Your task to perform on an android device: visit the assistant section in the google photos Image 0: 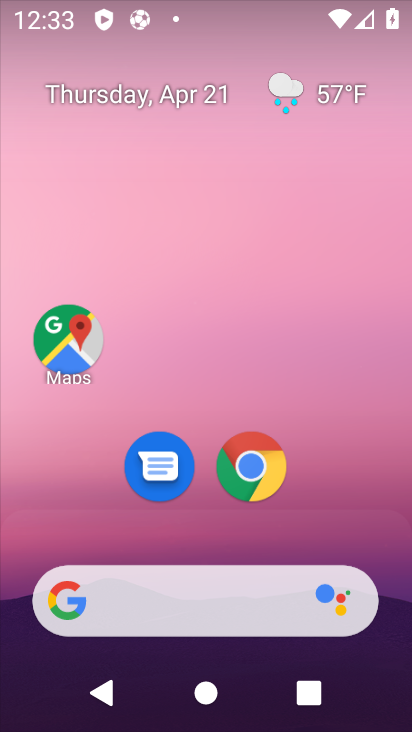
Step 0: drag from (342, 456) to (184, 59)
Your task to perform on an android device: visit the assistant section in the google photos Image 1: 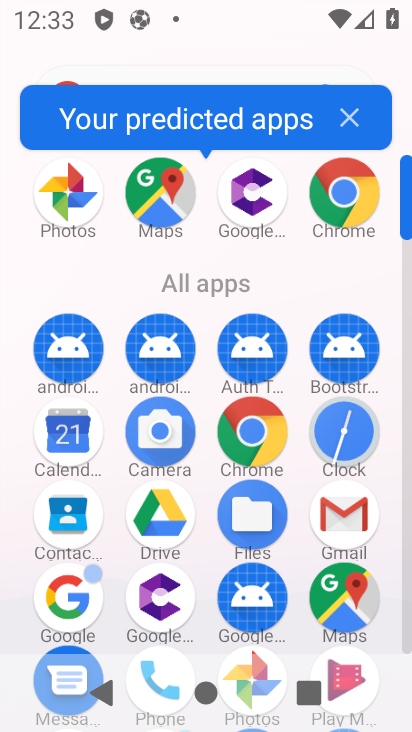
Step 1: click (59, 205)
Your task to perform on an android device: visit the assistant section in the google photos Image 2: 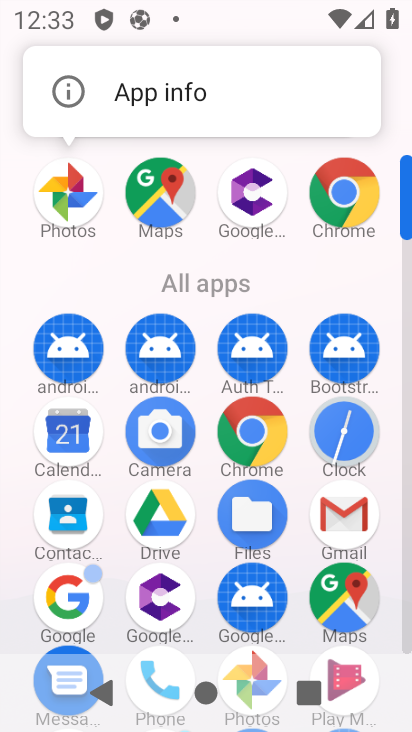
Step 2: click (60, 202)
Your task to perform on an android device: visit the assistant section in the google photos Image 3: 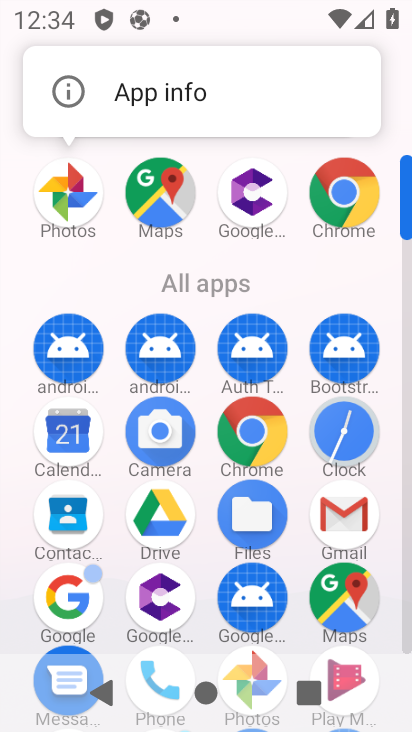
Step 3: click (61, 199)
Your task to perform on an android device: visit the assistant section in the google photos Image 4: 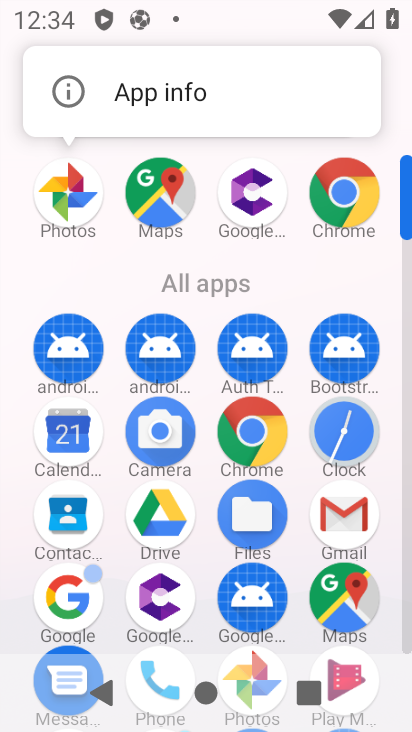
Step 4: click (61, 200)
Your task to perform on an android device: visit the assistant section in the google photos Image 5: 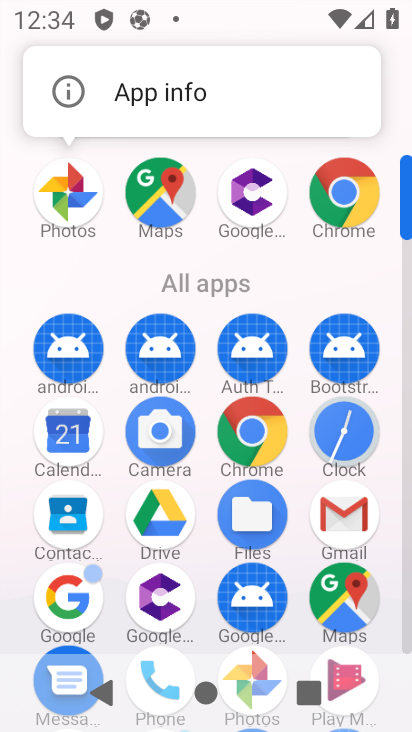
Step 5: click (61, 199)
Your task to perform on an android device: visit the assistant section in the google photos Image 6: 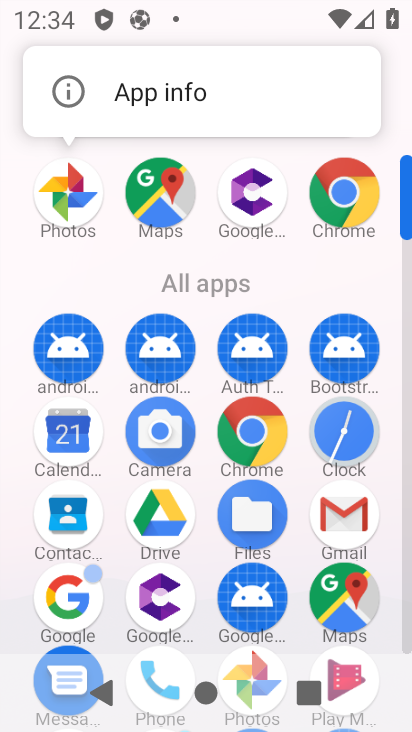
Step 6: click (71, 185)
Your task to perform on an android device: visit the assistant section in the google photos Image 7: 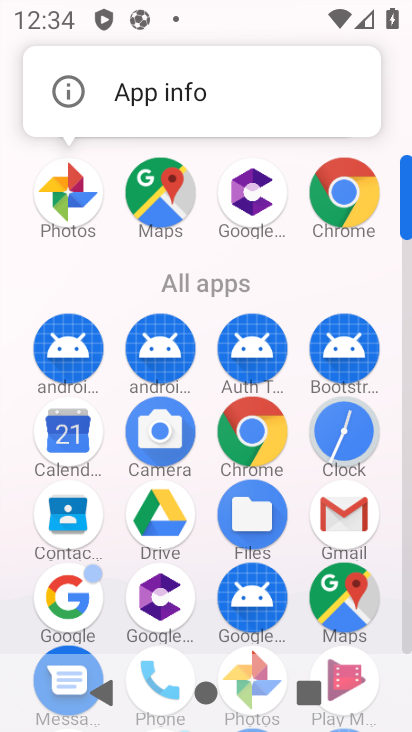
Step 7: click (71, 185)
Your task to perform on an android device: visit the assistant section in the google photos Image 8: 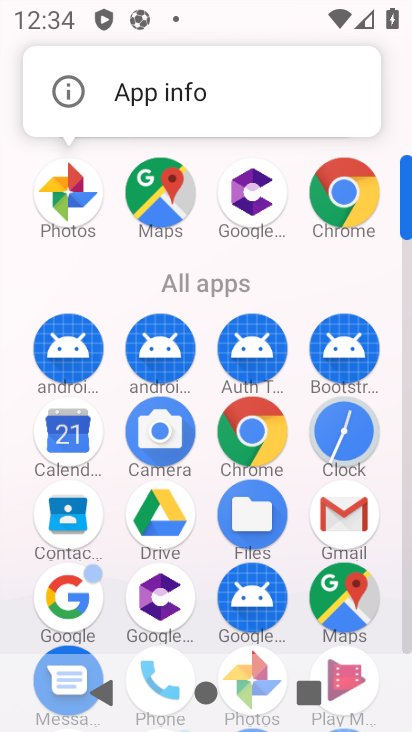
Step 8: click (71, 185)
Your task to perform on an android device: visit the assistant section in the google photos Image 9: 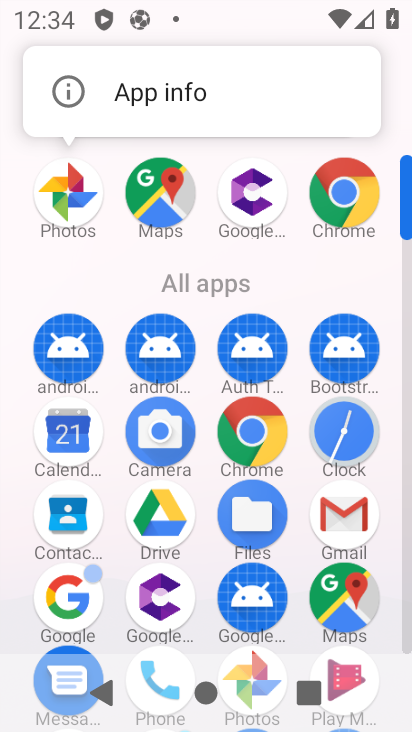
Step 9: click (71, 185)
Your task to perform on an android device: visit the assistant section in the google photos Image 10: 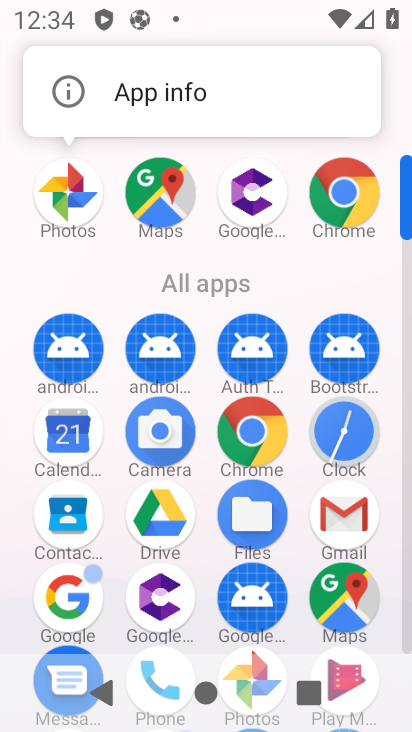
Step 10: click (104, 181)
Your task to perform on an android device: visit the assistant section in the google photos Image 11: 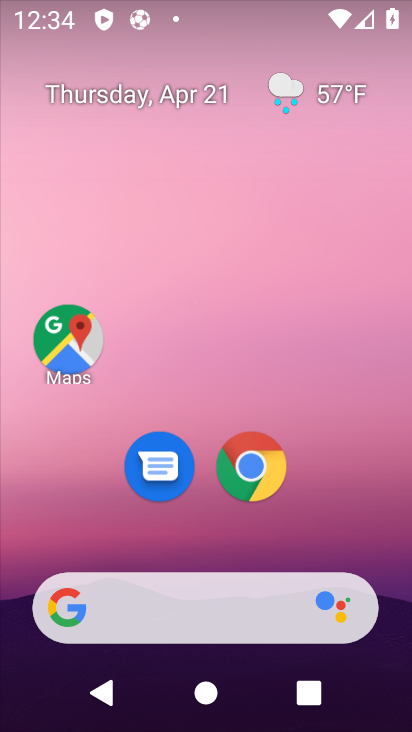
Step 11: drag from (344, 490) to (101, 249)
Your task to perform on an android device: visit the assistant section in the google photos Image 12: 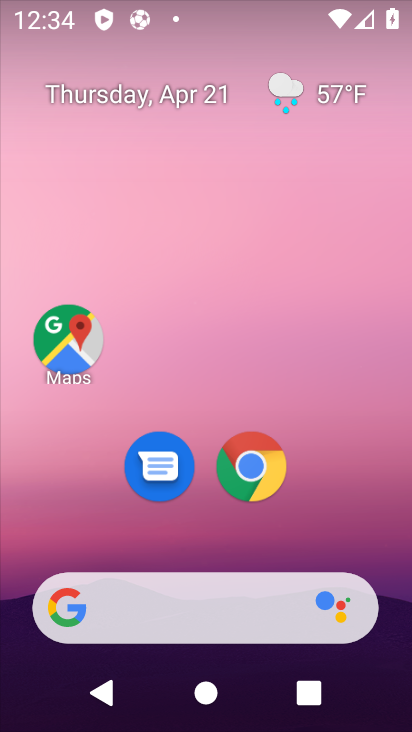
Step 12: drag from (376, 323) to (410, 3)
Your task to perform on an android device: visit the assistant section in the google photos Image 13: 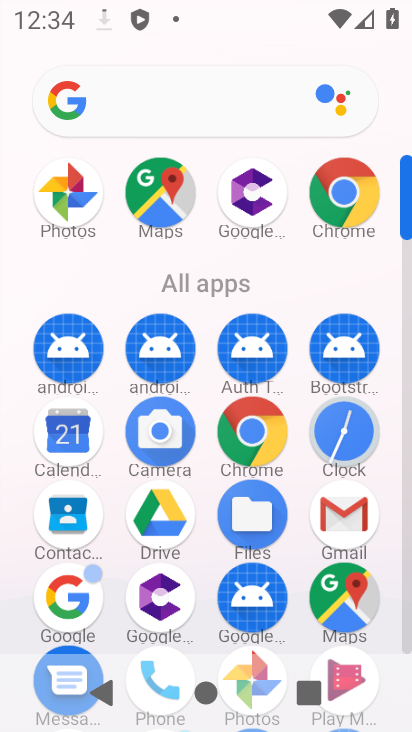
Step 13: click (241, 347)
Your task to perform on an android device: visit the assistant section in the google photos Image 14: 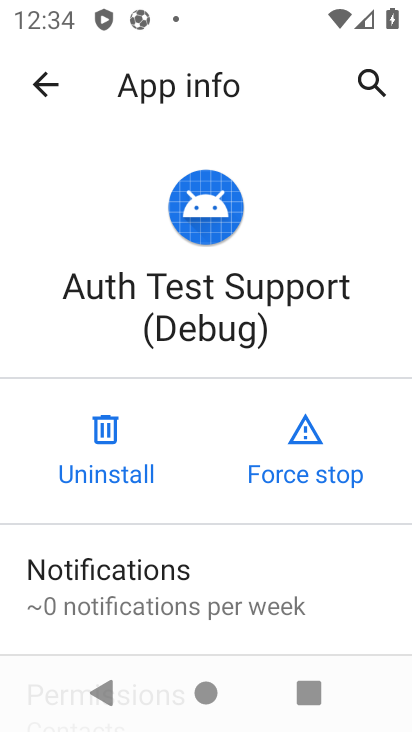
Step 14: click (24, 77)
Your task to perform on an android device: visit the assistant section in the google photos Image 15: 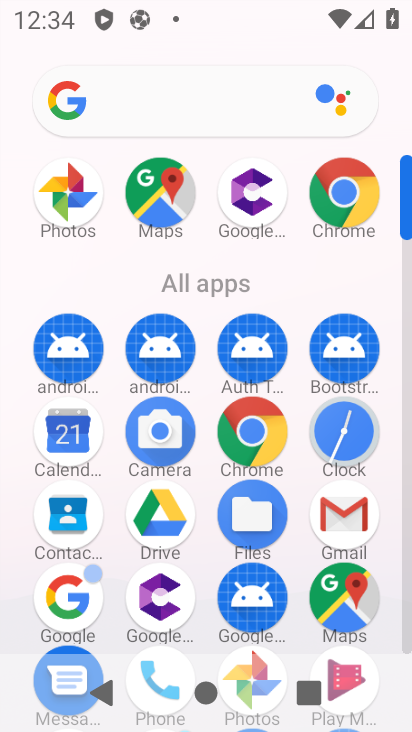
Step 15: drag from (24, 75) to (80, 202)
Your task to perform on an android device: visit the assistant section in the google photos Image 16: 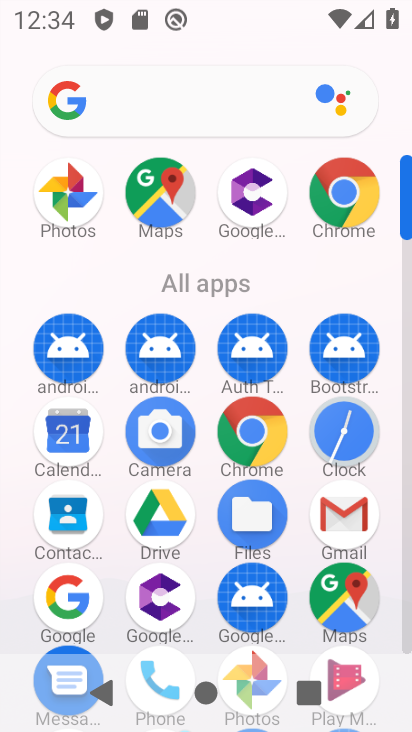
Step 16: drag from (24, 75) to (62, 207)
Your task to perform on an android device: visit the assistant section in the google photos Image 17: 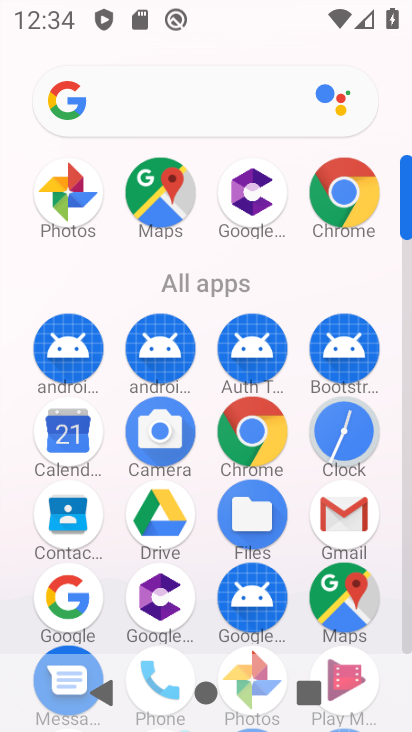
Step 17: drag from (24, 75) to (87, 199)
Your task to perform on an android device: visit the assistant section in the google photos Image 18: 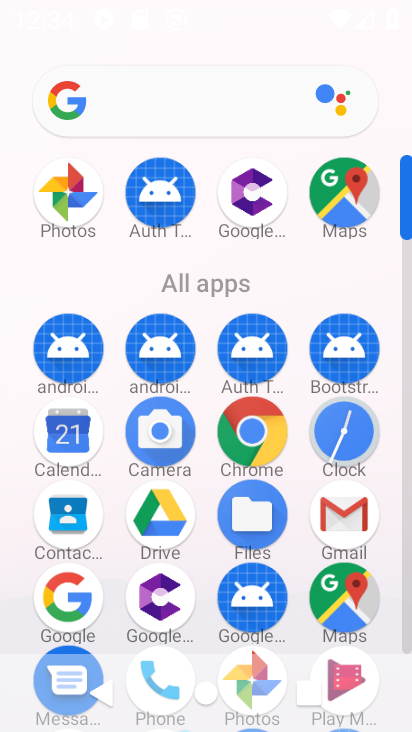
Step 18: click (84, 203)
Your task to perform on an android device: visit the assistant section in the google photos Image 19: 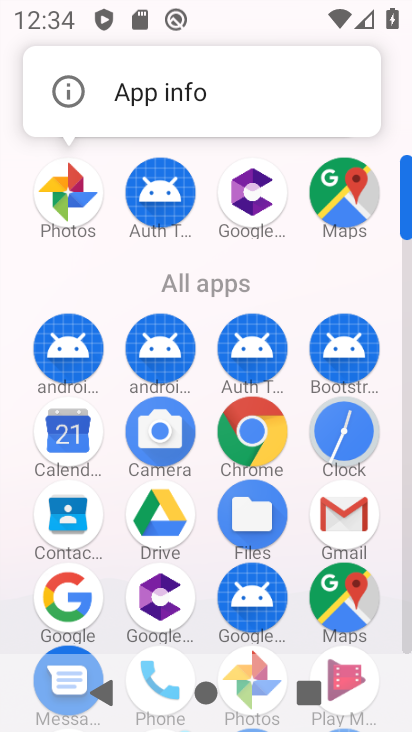
Step 19: click (47, 205)
Your task to perform on an android device: visit the assistant section in the google photos Image 20: 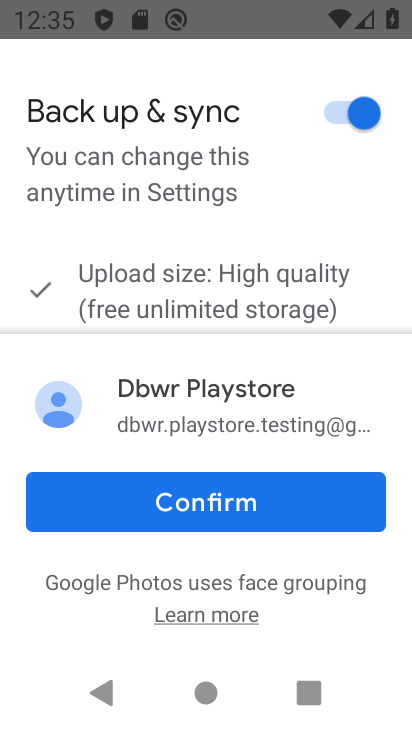
Step 20: click (200, 505)
Your task to perform on an android device: visit the assistant section in the google photos Image 21: 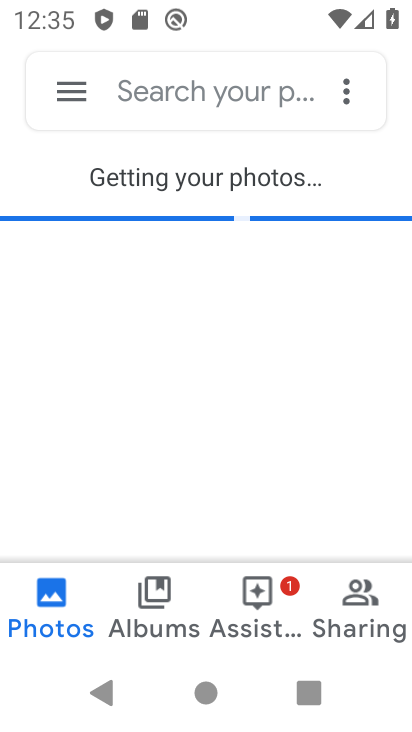
Step 21: click (259, 605)
Your task to perform on an android device: visit the assistant section in the google photos Image 22: 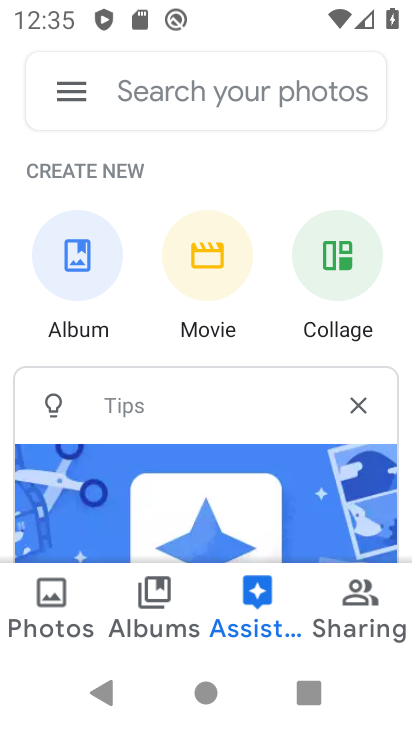
Step 22: task complete